Your task to perform on an android device: open app "Google Pay: Save, Pay, Manage" (install if not already installed) Image 0: 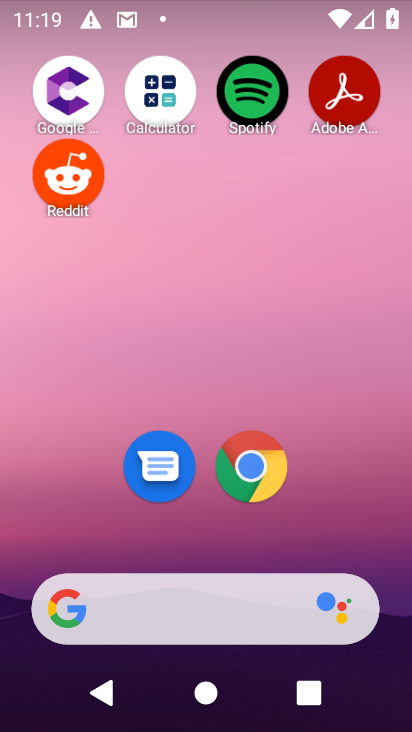
Step 0: drag from (222, 507) to (208, 248)
Your task to perform on an android device: open app "Google Pay: Save, Pay, Manage" (install if not already installed) Image 1: 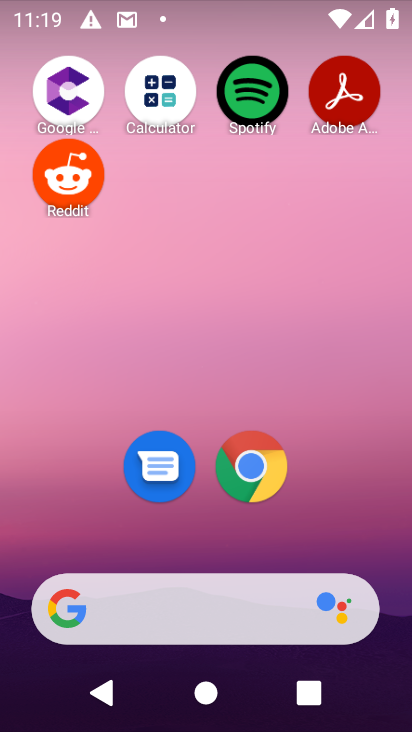
Step 1: drag from (144, 585) to (243, 78)
Your task to perform on an android device: open app "Google Pay: Save, Pay, Manage" (install if not already installed) Image 2: 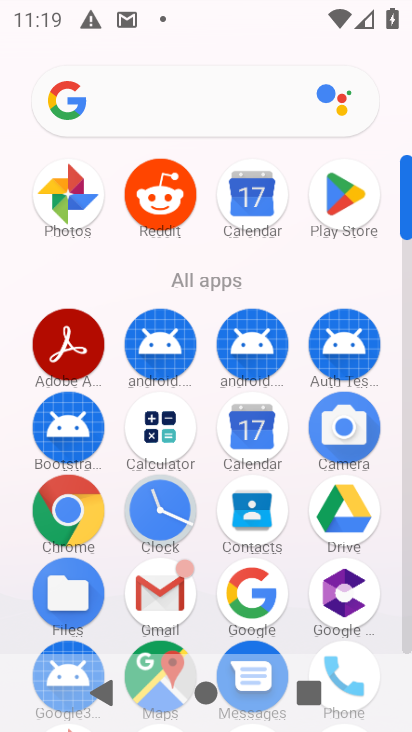
Step 2: click (347, 231)
Your task to perform on an android device: open app "Google Pay: Save, Pay, Manage" (install if not already installed) Image 3: 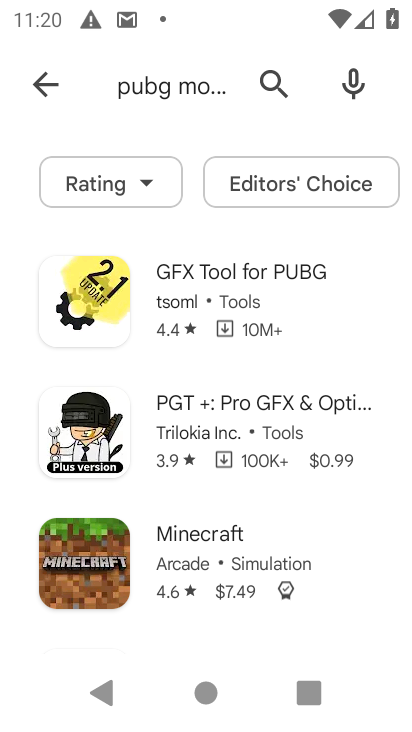
Step 3: click (38, 87)
Your task to perform on an android device: open app "Google Pay: Save, Pay, Manage" (install if not already installed) Image 4: 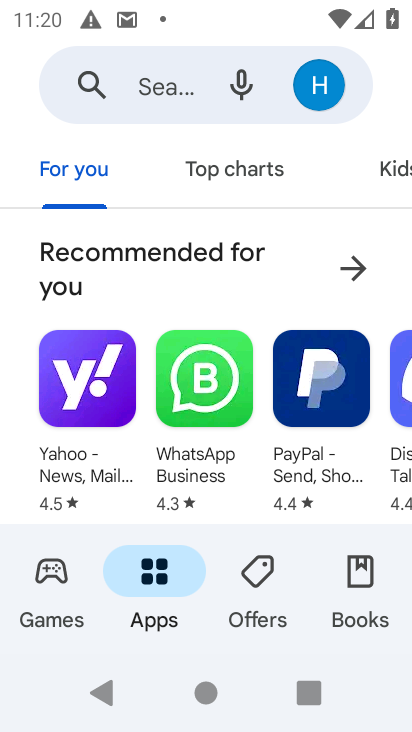
Step 4: click (120, 100)
Your task to perform on an android device: open app "Google Pay: Save, Pay, Manage" (install if not already installed) Image 5: 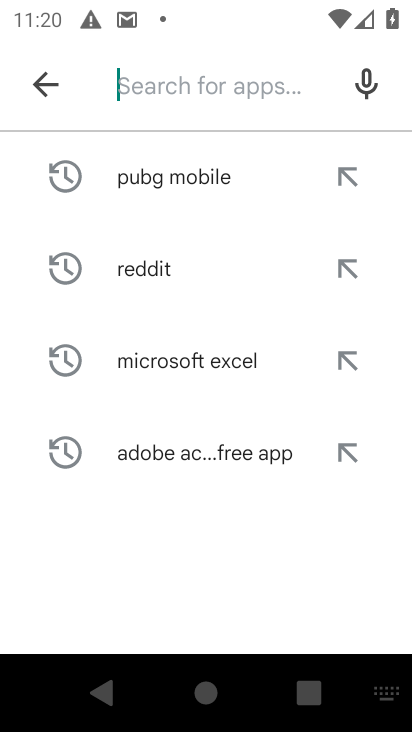
Step 5: type "Google Pay: Save, Pay, Manage"
Your task to perform on an android device: open app "Google Pay: Save, Pay, Manage" (install if not already installed) Image 6: 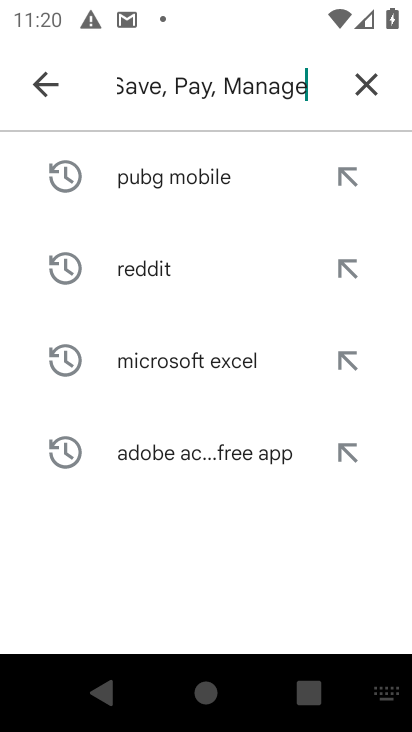
Step 6: type ""
Your task to perform on an android device: open app "Google Pay: Save, Pay, Manage" (install if not already installed) Image 7: 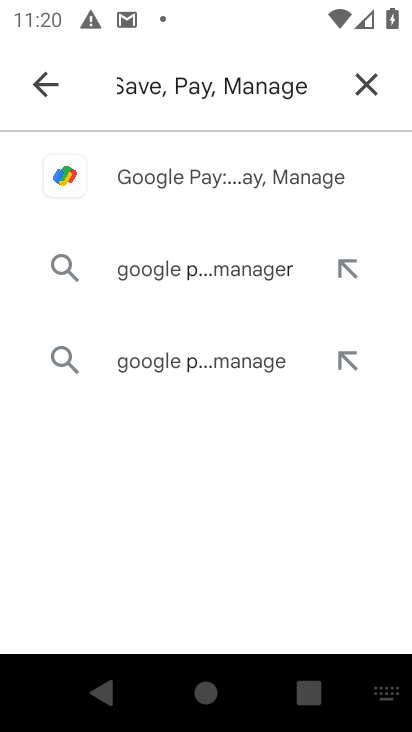
Step 7: click (297, 183)
Your task to perform on an android device: open app "Google Pay: Save, Pay, Manage" (install if not already installed) Image 8: 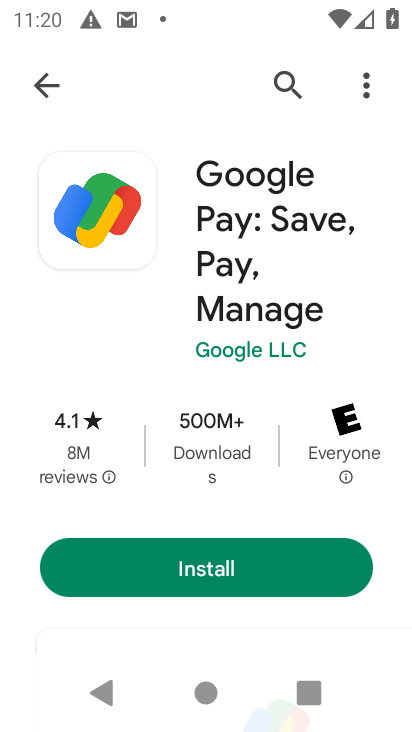
Step 8: click (227, 577)
Your task to perform on an android device: open app "Google Pay: Save, Pay, Manage" (install if not already installed) Image 9: 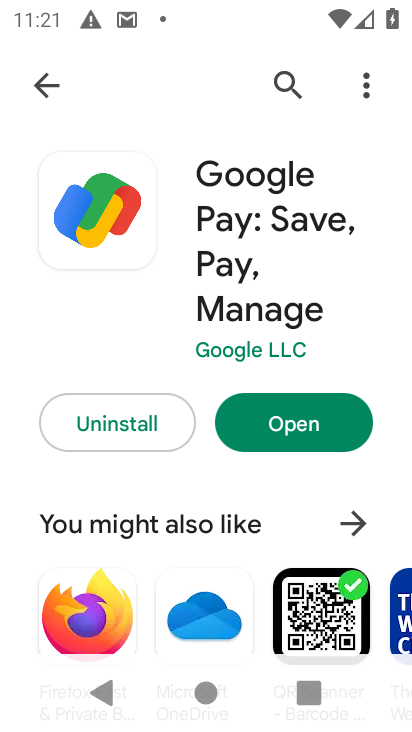
Step 9: click (264, 425)
Your task to perform on an android device: open app "Google Pay: Save, Pay, Manage" (install if not already installed) Image 10: 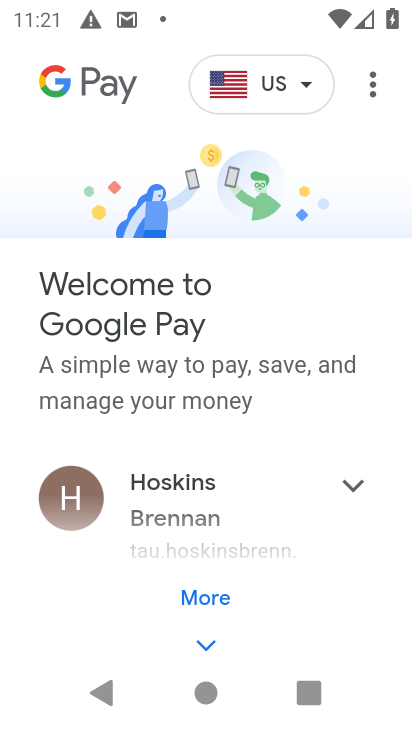
Step 10: task complete